Your task to perform on an android device: open a new tab in the chrome app Image 0: 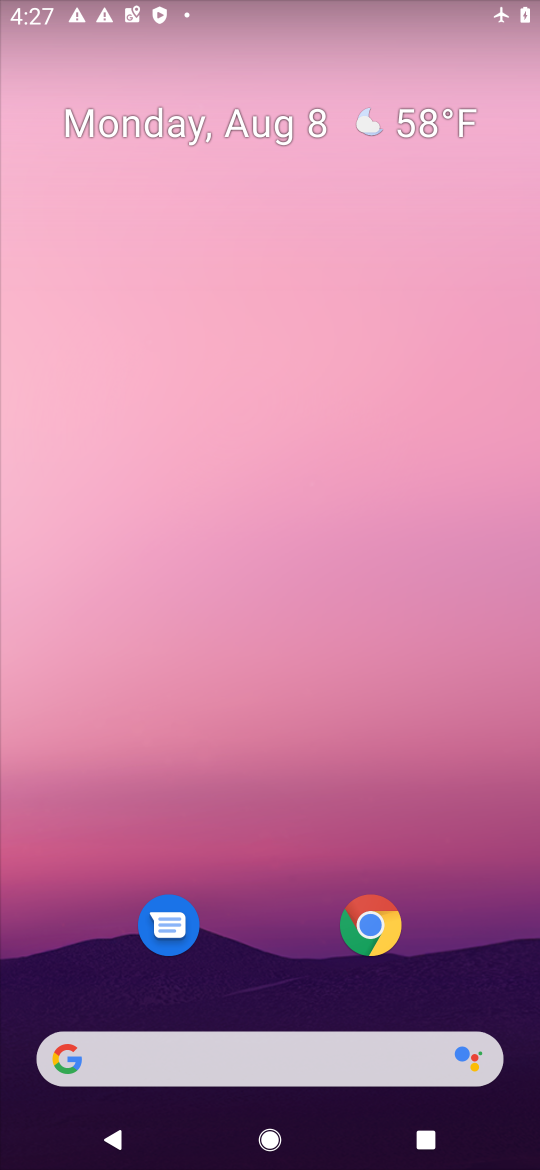
Step 0: drag from (288, 1028) to (330, 130)
Your task to perform on an android device: open a new tab in the chrome app Image 1: 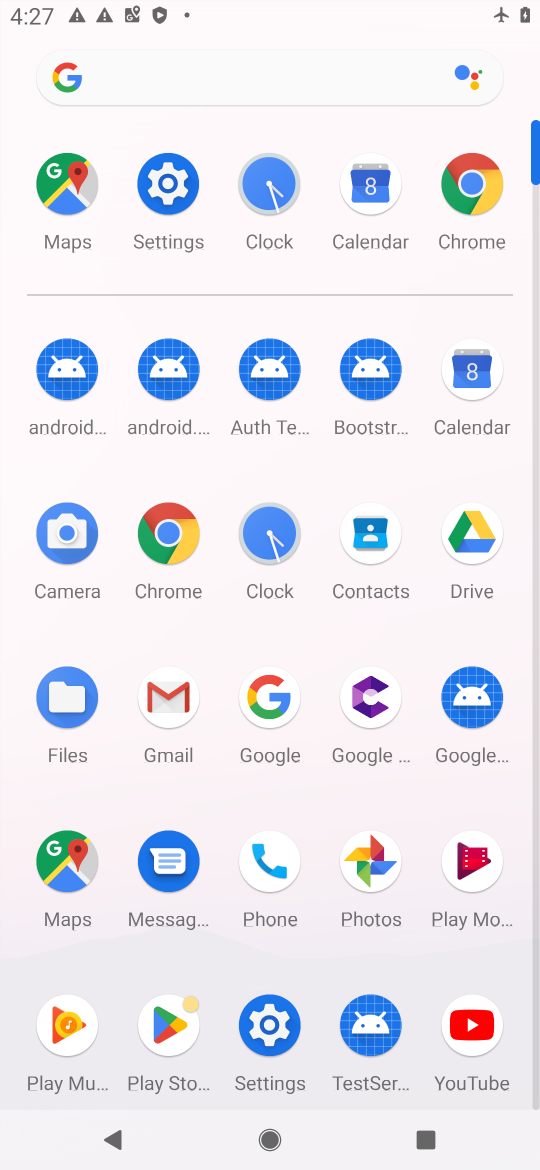
Step 1: click (464, 197)
Your task to perform on an android device: open a new tab in the chrome app Image 2: 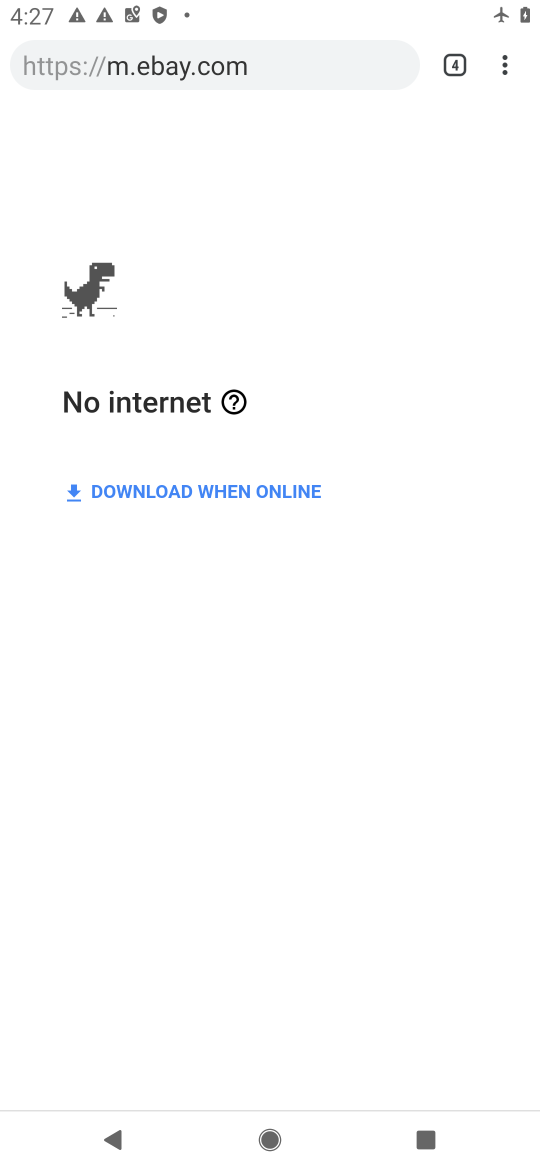
Step 2: task complete